Your task to perform on an android device: turn on showing notifications on the lock screen Image 0: 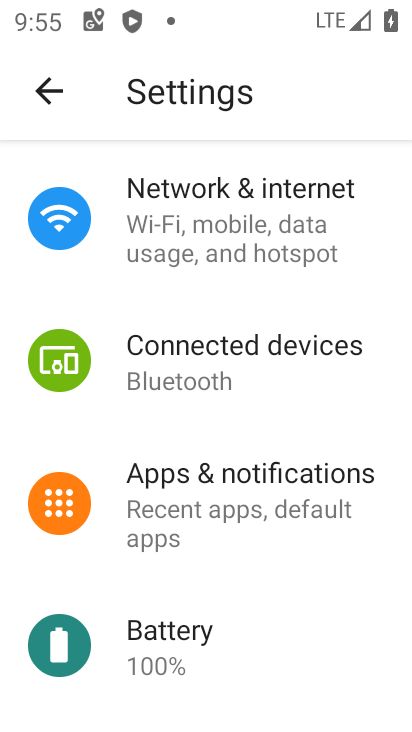
Step 0: click (319, 490)
Your task to perform on an android device: turn on showing notifications on the lock screen Image 1: 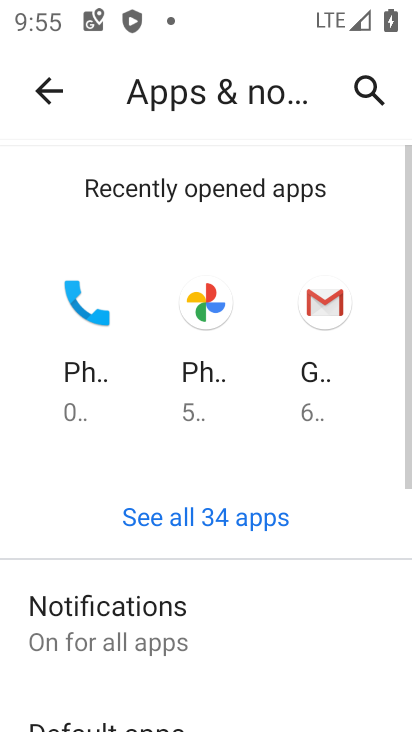
Step 1: task complete